Your task to perform on an android device: Go to location settings Image 0: 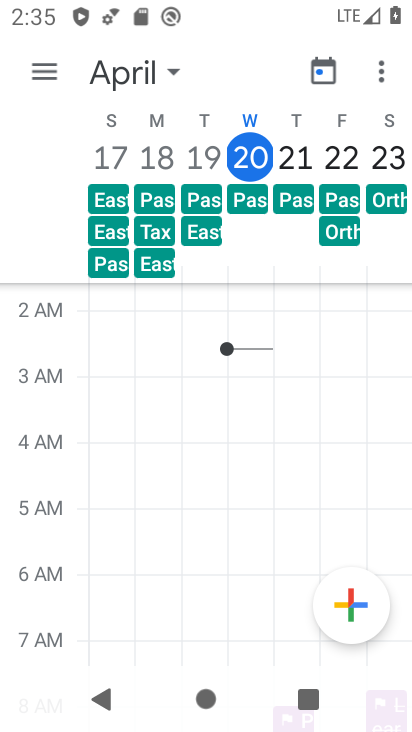
Step 0: press home button
Your task to perform on an android device: Go to location settings Image 1: 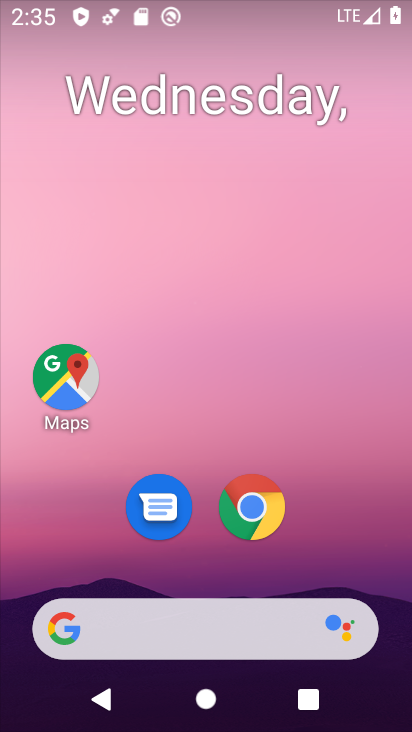
Step 1: drag from (298, 425) to (297, 70)
Your task to perform on an android device: Go to location settings Image 2: 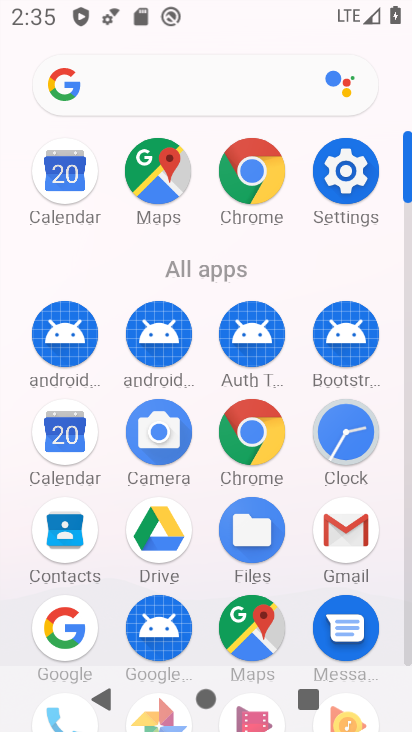
Step 2: click (340, 168)
Your task to perform on an android device: Go to location settings Image 3: 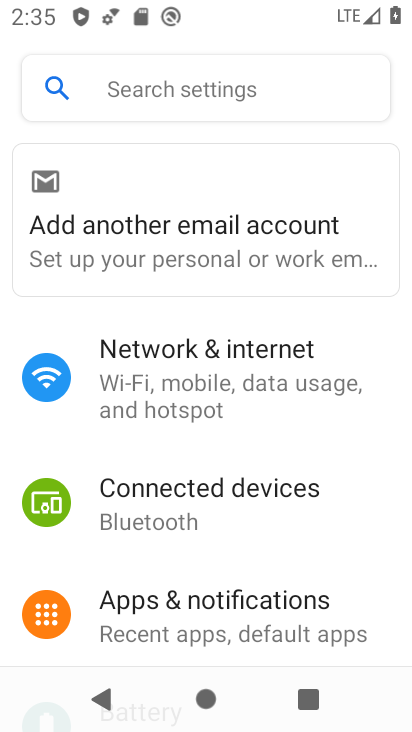
Step 3: drag from (298, 565) to (294, 148)
Your task to perform on an android device: Go to location settings Image 4: 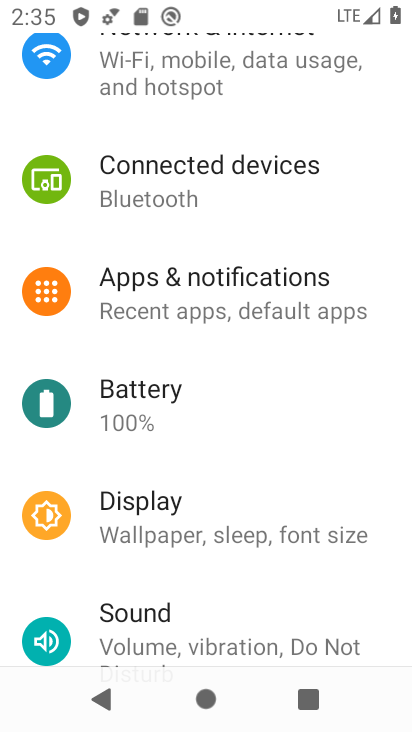
Step 4: drag from (271, 590) to (269, 162)
Your task to perform on an android device: Go to location settings Image 5: 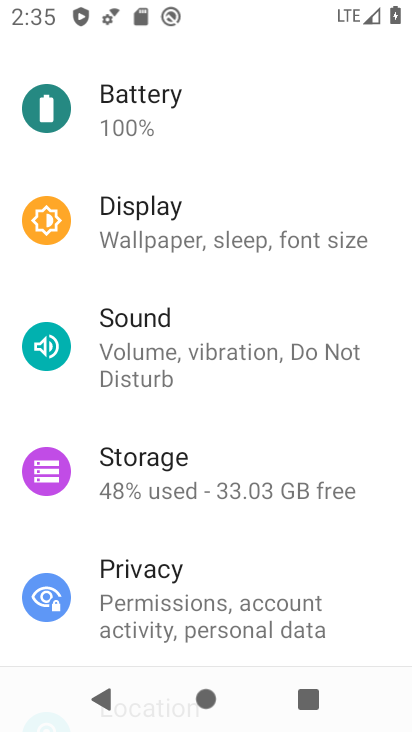
Step 5: drag from (248, 541) to (248, 164)
Your task to perform on an android device: Go to location settings Image 6: 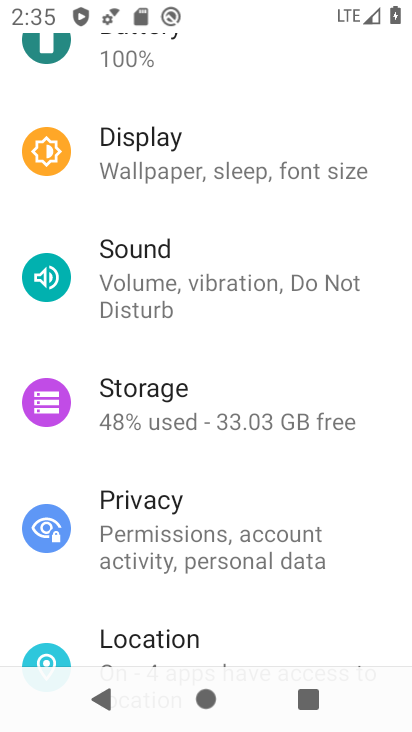
Step 6: click (214, 642)
Your task to perform on an android device: Go to location settings Image 7: 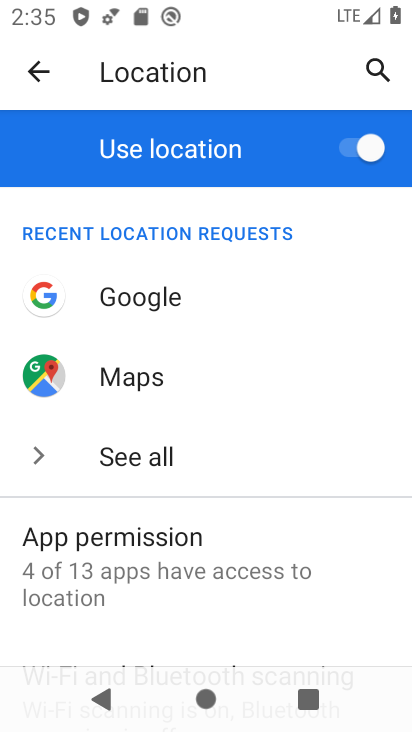
Step 7: task complete